Your task to perform on an android device: add a label to a message in the gmail app Image 0: 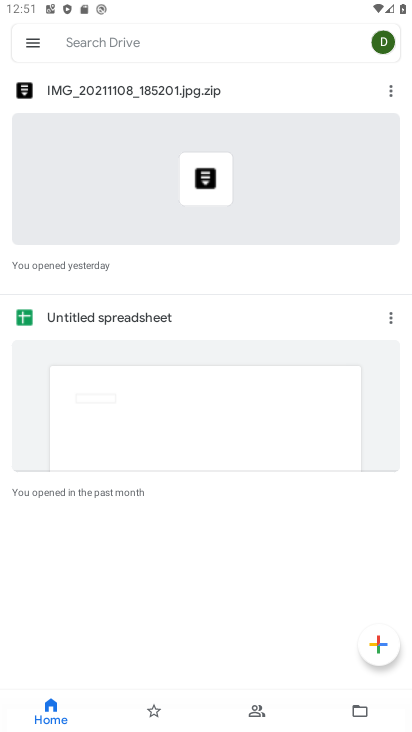
Step 0: press home button
Your task to perform on an android device: add a label to a message in the gmail app Image 1: 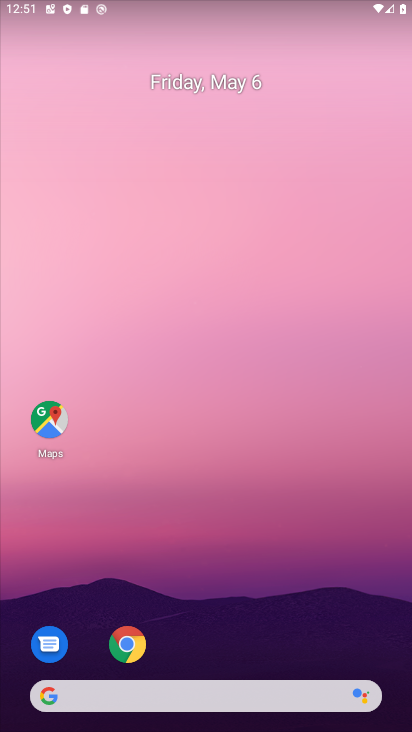
Step 1: drag from (142, 392) to (196, 40)
Your task to perform on an android device: add a label to a message in the gmail app Image 2: 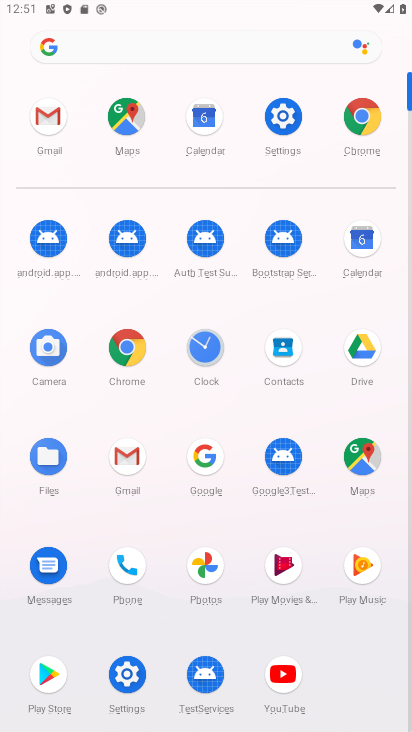
Step 2: click (127, 453)
Your task to perform on an android device: add a label to a message in the gmail app Image 3: 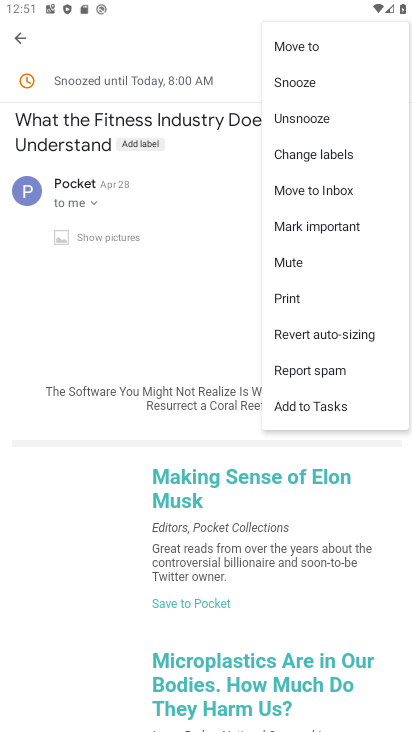
Step 3: click (66, 303)
Your task to perform on an android device: add a label to a message in the gmail app Image 4: 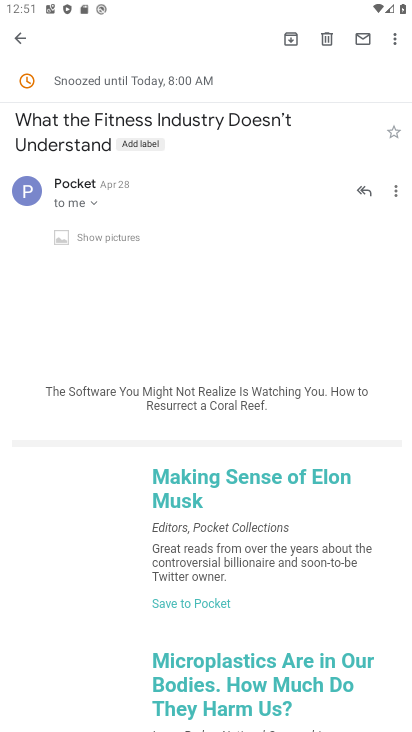
Step 4: click (397, 35)
Your task to perform on an android device: add a label to a message in the gmail app Image 5: 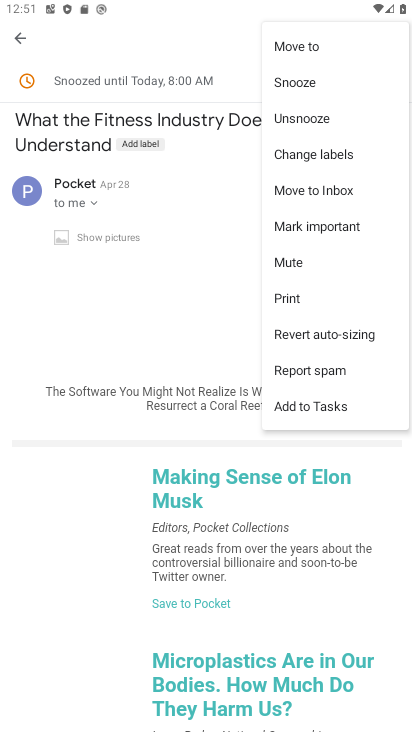
Step 5: click (324, 159)
Your task to perform on an android device: add a label to a message in the gmail app Image 6: 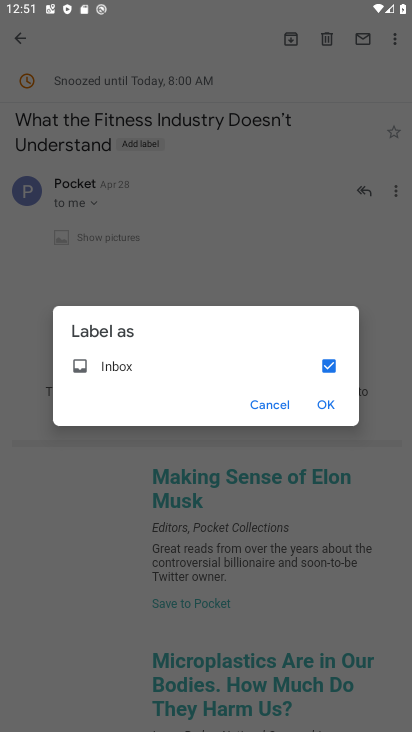
Step 6: click (326, 400)
Your task to perform on an android device: add a label to a message in the gmail app Image 7: 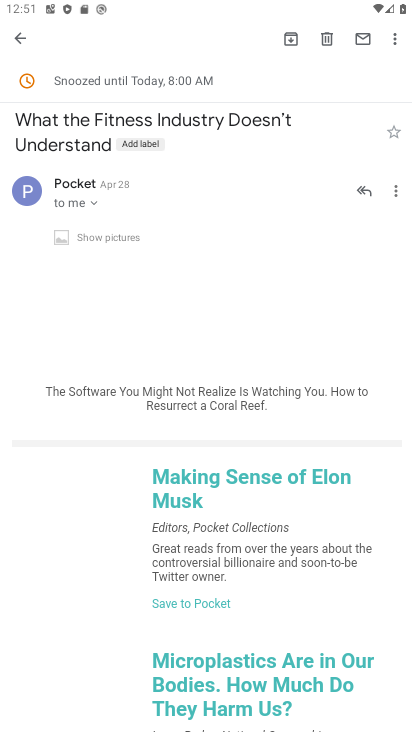
Step 7: task complete